Your task to perform on an android device: Open location settings Image 0: 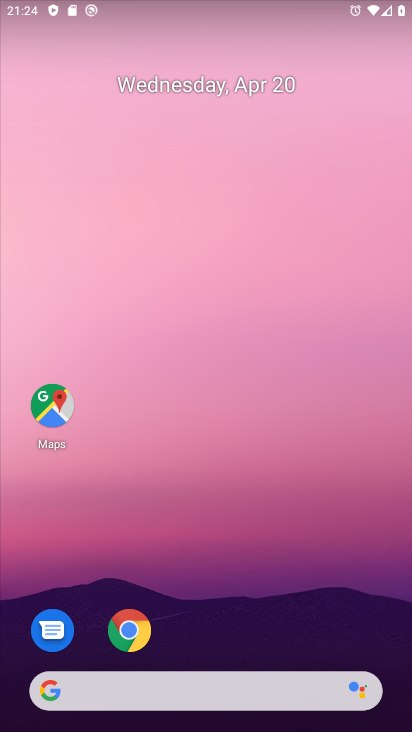
Step 0: drag from (225, 546) to (232, 119)
Your task to perform on an android device: Open location settings Image 1: 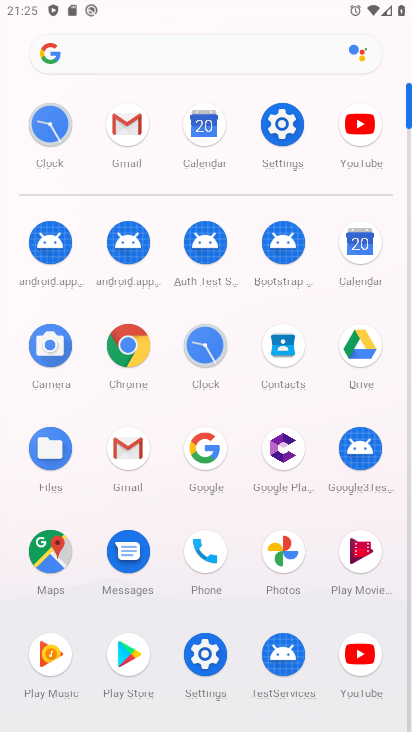
Step 1: click (280, 116)
Your task to perform on an android device: Open location settings Image 2: 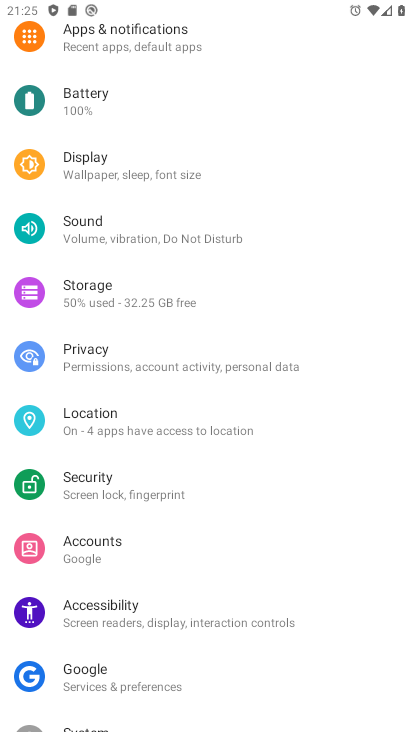
Step 2: click (161, 425)
Your task to perform on an android device: Open location settings Image 3: 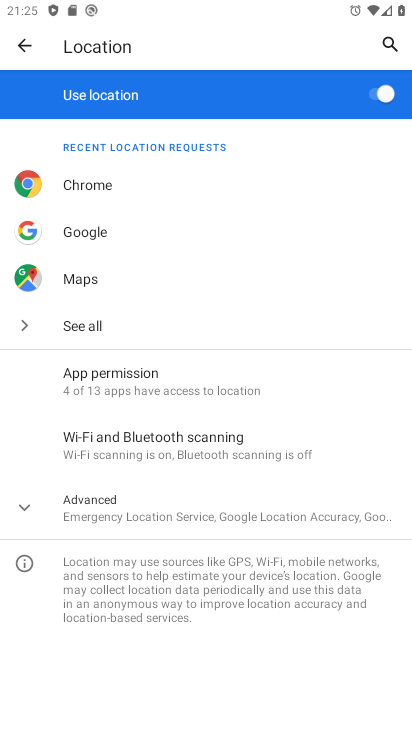
Step 3: task complete